Your task to perform on an android device: turn off picture-in-picture Image 0: 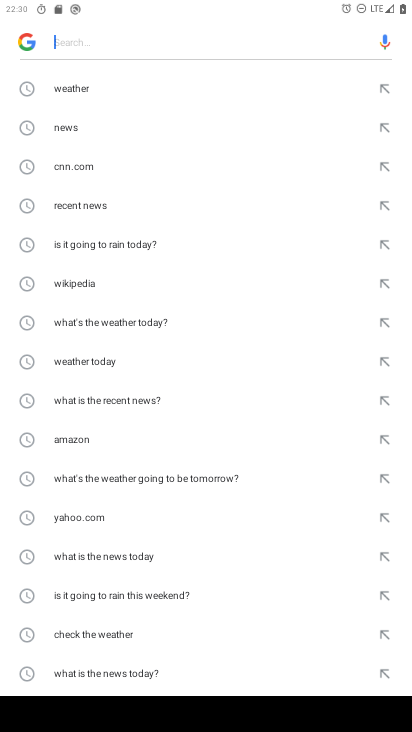
Step 0: press home button
Your task to perform on an android device: turn off picture-in-picture Image 1: 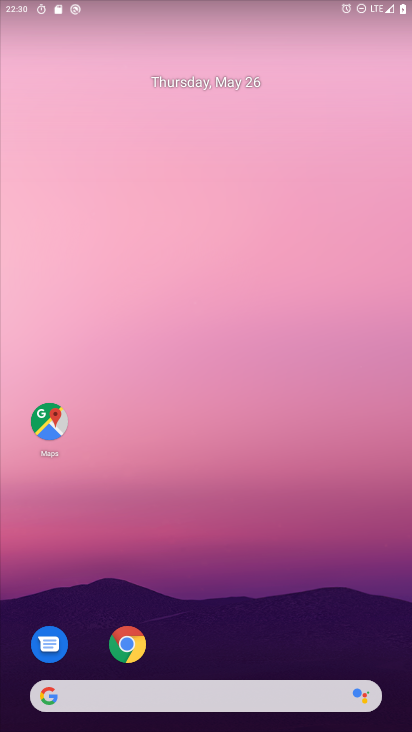
Step 1: drag from (229, 650) to (206, 107)
Your task to perform on an android device: turn off picture-in-picture Image 2: 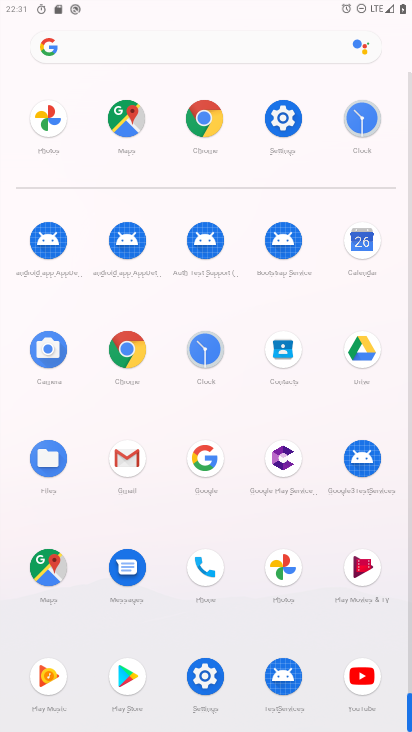
Step 2: click (280, 118)
Your task to perform on an android device: turn off picture-in-picture Image 3: 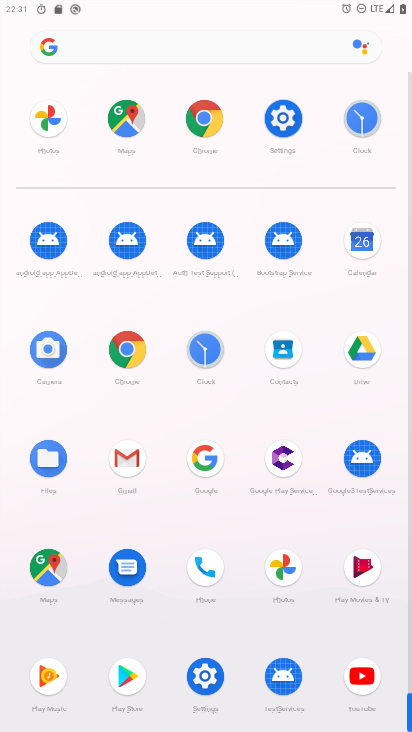
Step 3: click (279, 118)
Your task to perform on an android device: turn off picture-in-picture Image 4: 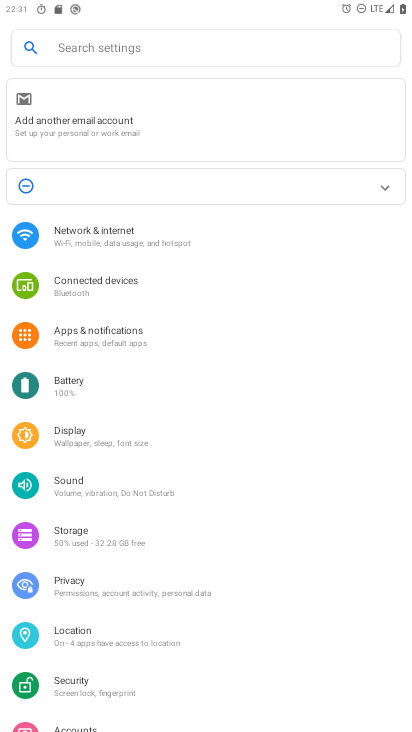
Step 4: click (117, 338)
Your task to perform on an android device: turn off picture-in-picture Image 5: 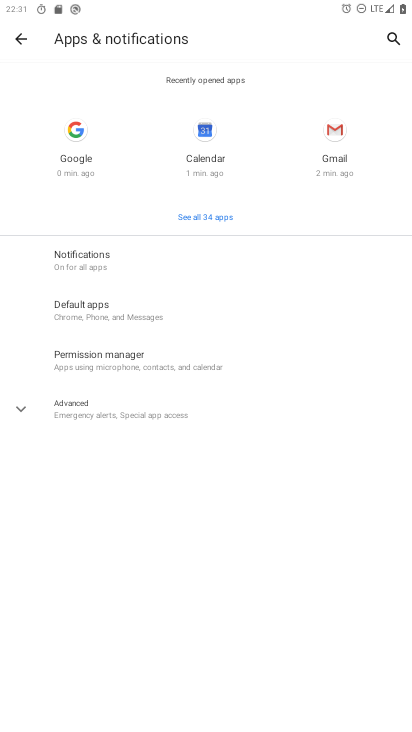
Step 5: click (151, 422)
Your task to perform on an android device: turn off picture-in-picture Image 6: 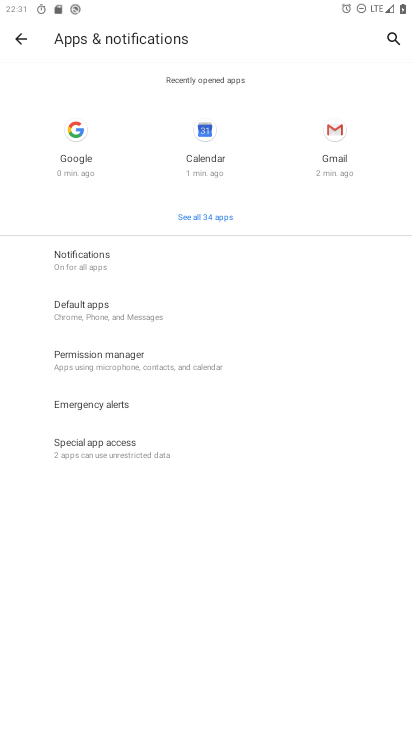
Step 6: click (101, 441)
Your task to perform on an android device: turn off picture-in-picture Image 7: 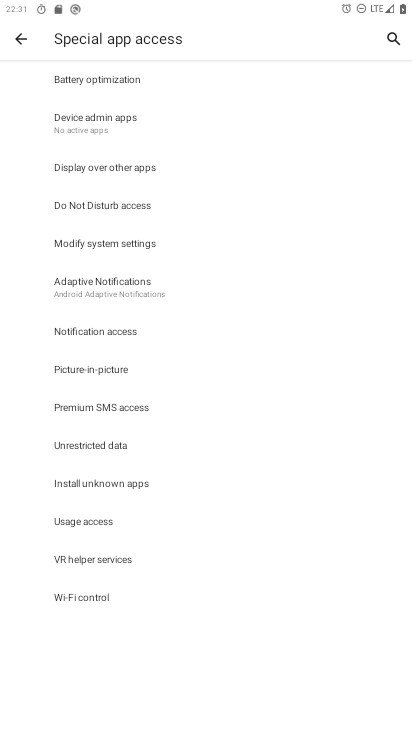
Step 7: click (109, 368)
Your task to perform on an android device: turn off picture-in-picture Image 8: 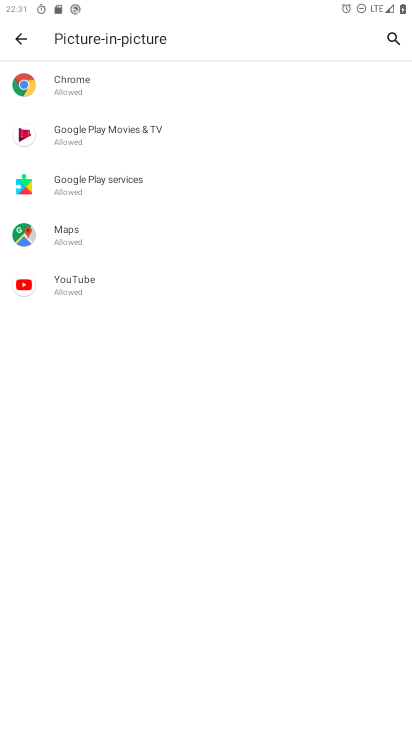
Step 8: click (68, 74)
Your task to perform on an android device: turn off picture-in-picture Image 9: 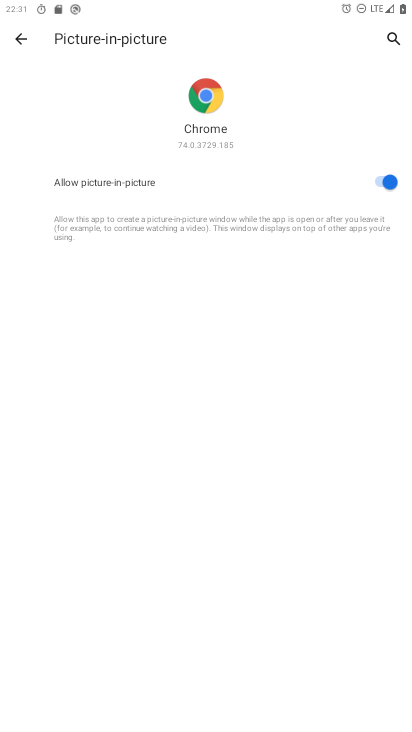
Step 9: click (383, 182)
Your task to perform on an android device: turn off picture-in-picture Image 10: 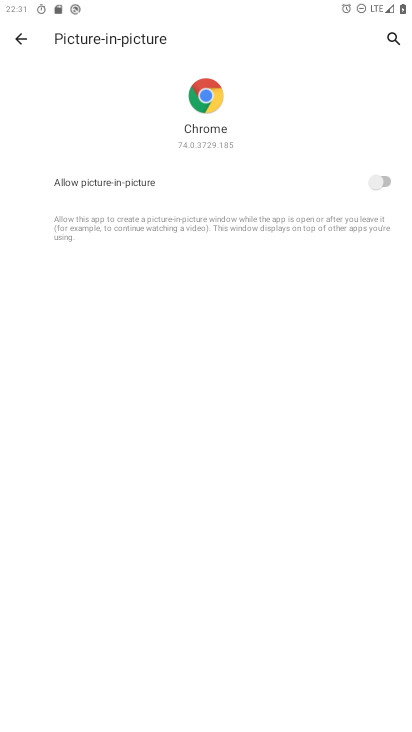
Step 10: task complete